Your task to perform on an android device: What's the weather today? Image 0: 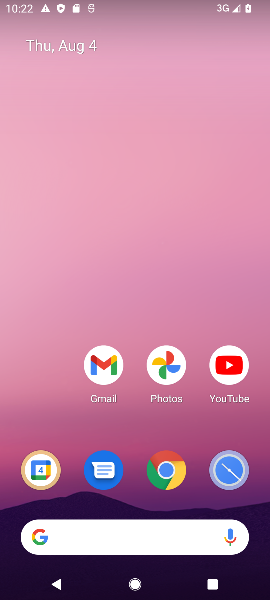
Step 0: click (164, 536)
Your task to perform on an android device: What's the weather today? Image 1: 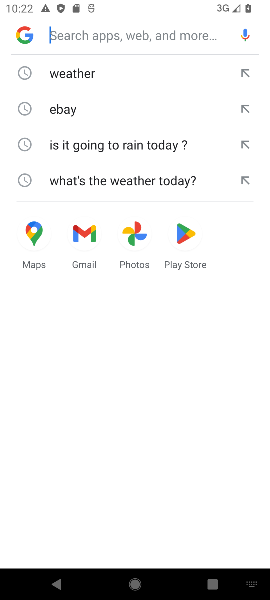
Step 1: type "what's the weather today"
Your task to perform on an android device: What's the weather today? Image 2: 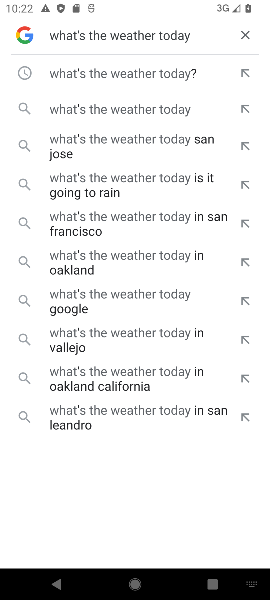
Step 2: click (88, 77)
Your task to perform on an android device: What's the weather today? Image 3: 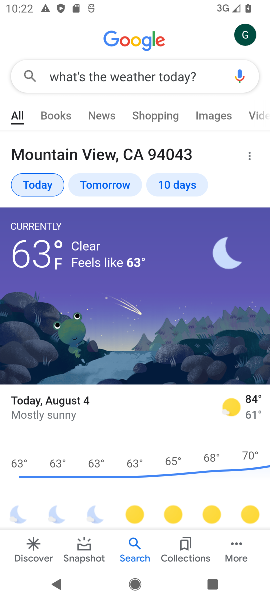
Step 3: task complete